Your task to perform on an android device: Show me popular games on the Play Store Image 0: 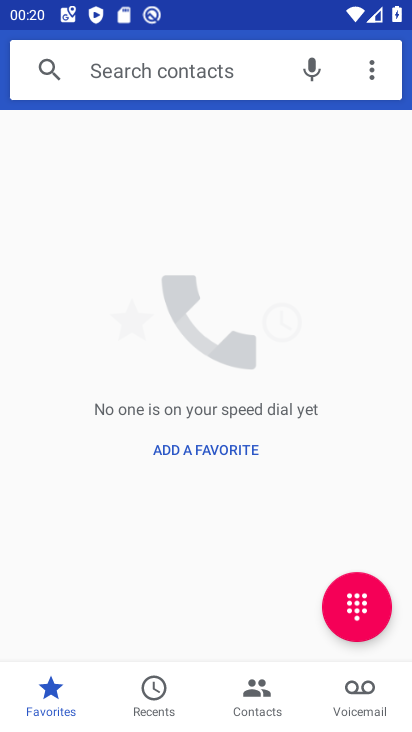
Step 0: press home button
Your task to perform on an android device: Show me popular games on the Play Store Image 1: 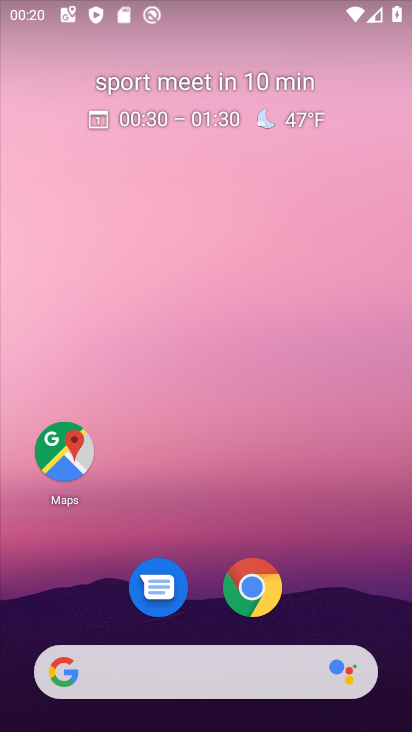
Step 1: drag from (372, 596) to (362, 259)
Your task to perform on an android device: Show me popular games on the Play Store Image 2: 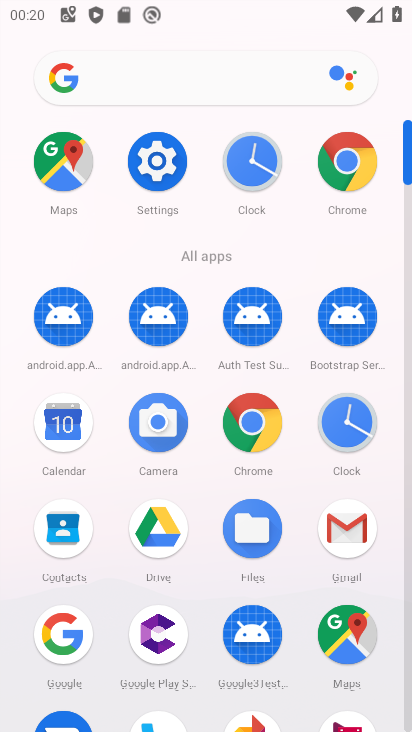
Step 2: drag from (409, 135) to (408, 84)
Your task to perform on an android device: Show me popular games on the Play Store Image 3: 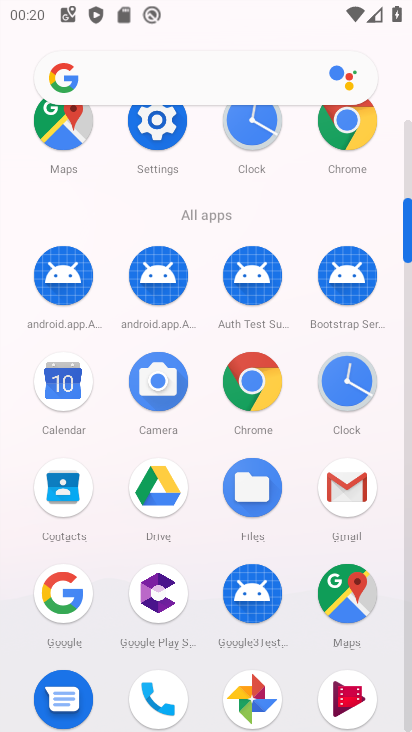
Step 3: drag from (407, 205) to (412, 114)
Your task to perform on an android device: Show me popular games on the Play Store Image 4: 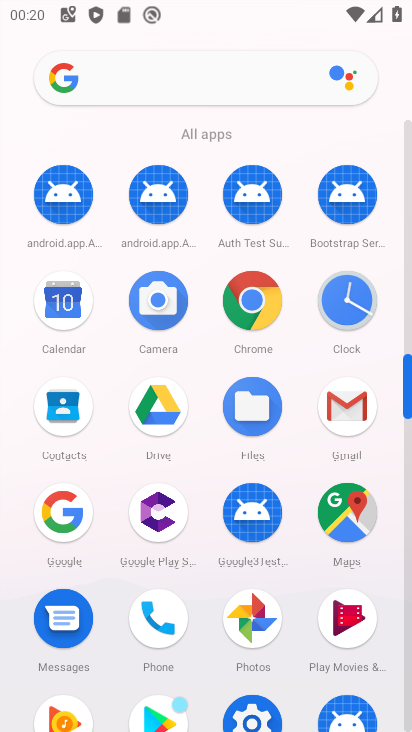
Step 4: drag from (408, 309) to (409, 180)
Your task to perform on an android device: Show me popular games on the Play Store Image 5: 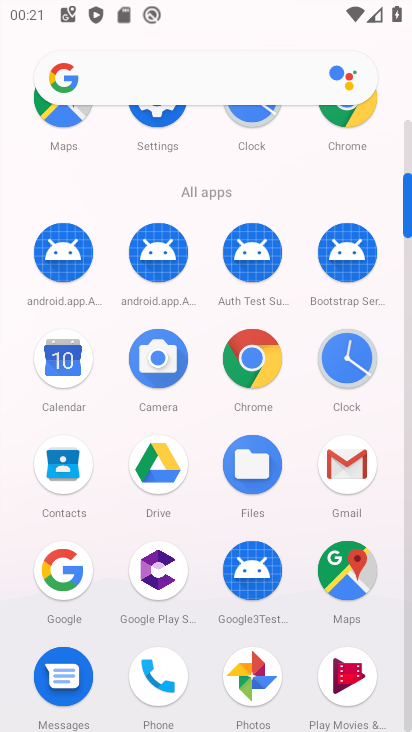
Step 5: drag from (404, 179) to (408, 145)
Your task to perform on an android device: Show me popular games on the Play Store Image 6: 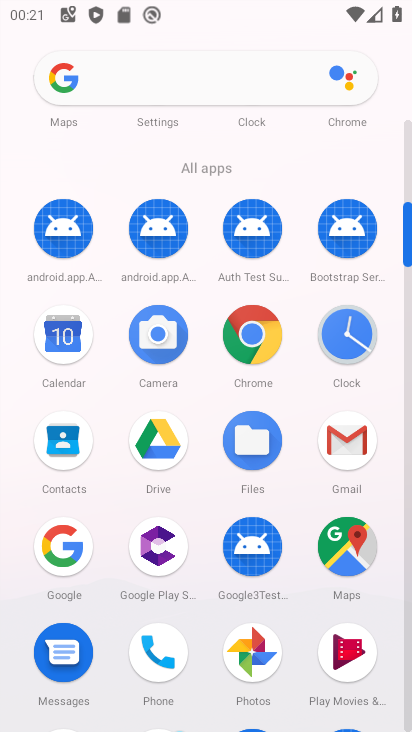
Step 6: drag from (408, 214) to (412, 108)
Your task to perform on an android device: Show me popular games on the Play Store Image 7: 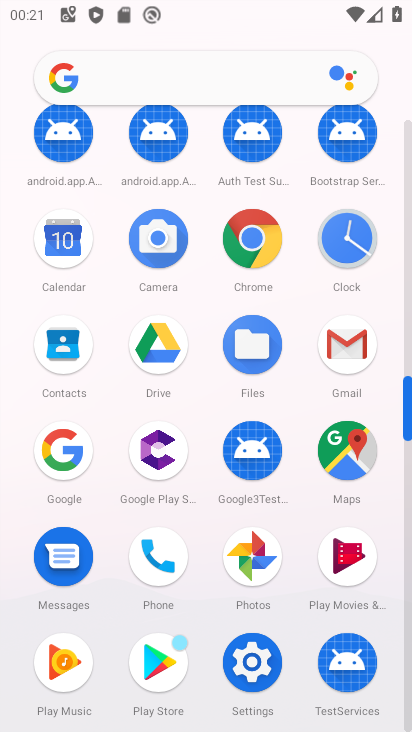
Step 7: click (155, 667)
Your task to perform on an android device: Show me popular games on the Play Store Image 8: 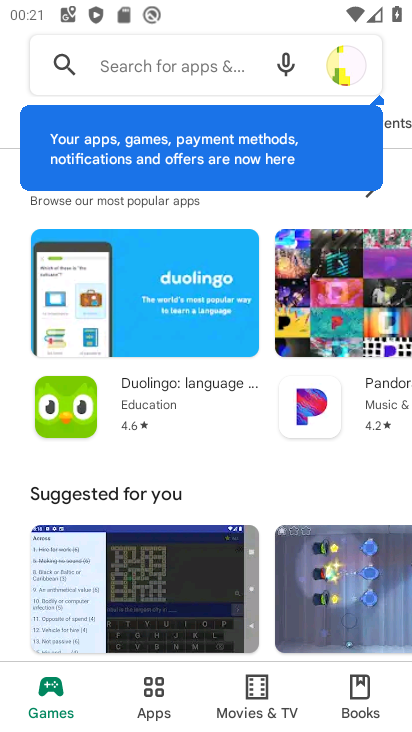
Step 8: click (221, 68)
Your task to perform on an android device: Show me popular games on the Play Store Image 9: 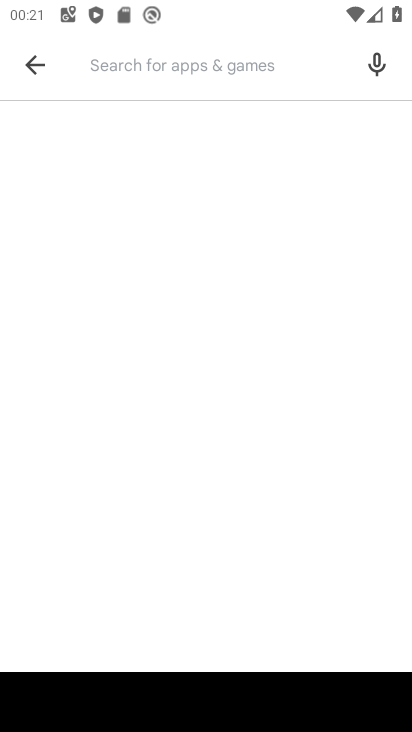
Step 9: type " popular games"
Your task to perform on an android device: Show me popular games on the Play Store Image 10: 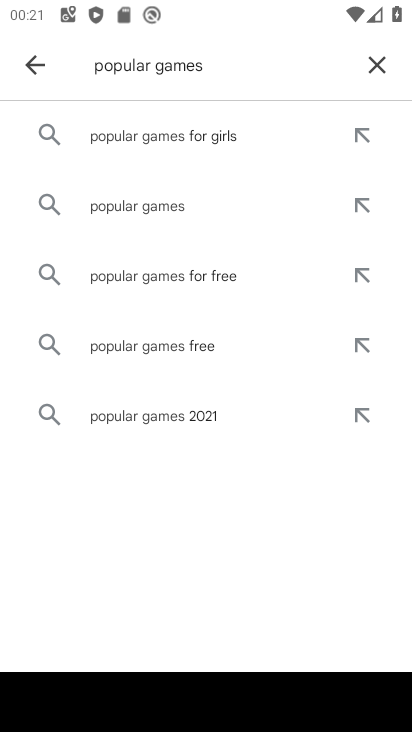
Step 10: click (144, 206)
Your task to perform on an android device: Show me popular games on the Play Store Image 11: 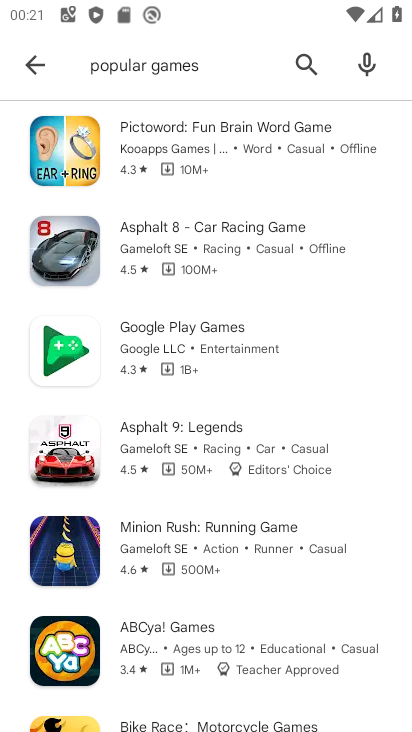
Step 11: task complete